Your task to perform on an android device: turn on translation in the chrome app Image 0: 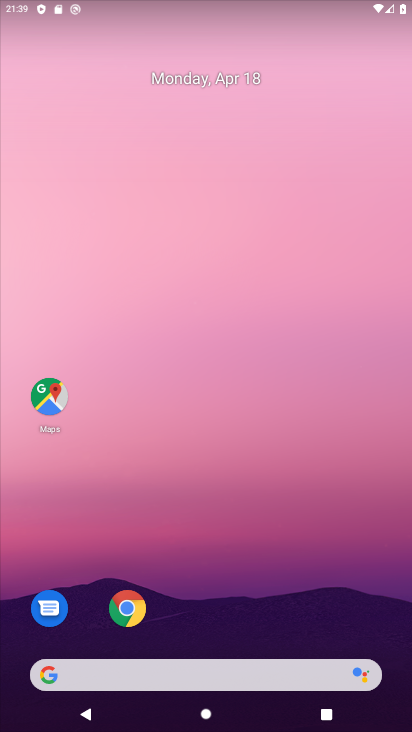
Step 0: drag from (237, 598) to (225, 199)
Your task to perform on an android device: turn on translation in the chrome app Image 1: 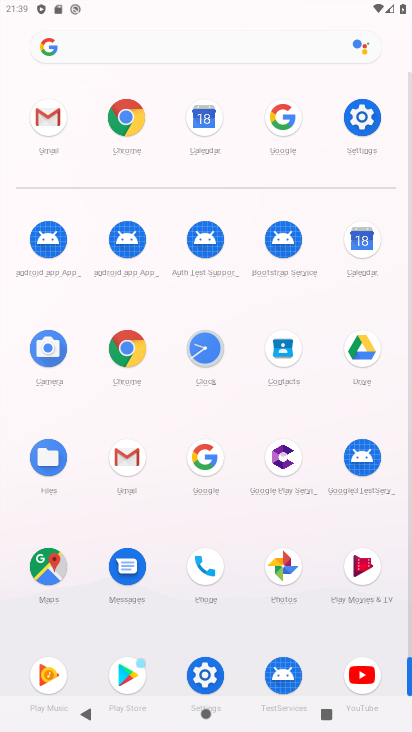
Step 1: drag from (169, 614) to (183, 392)
Your task to perform on an android device: turn on translation in the chrome app Image 2: 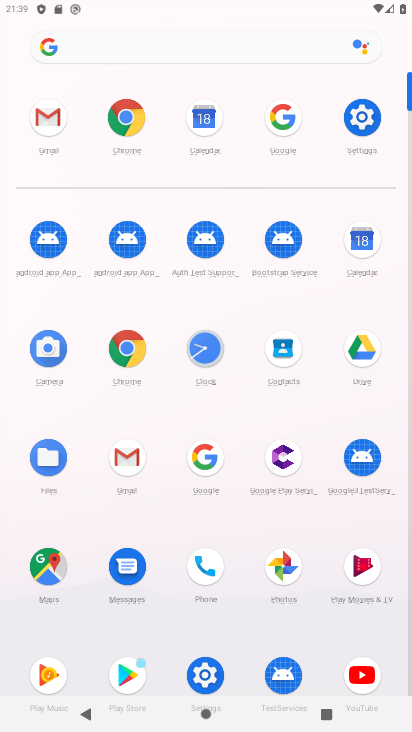
Step 2: drag from (171, 609) to (160, 504)
Your task to perform on an android device: turn on translation in the chrome app Image 3: 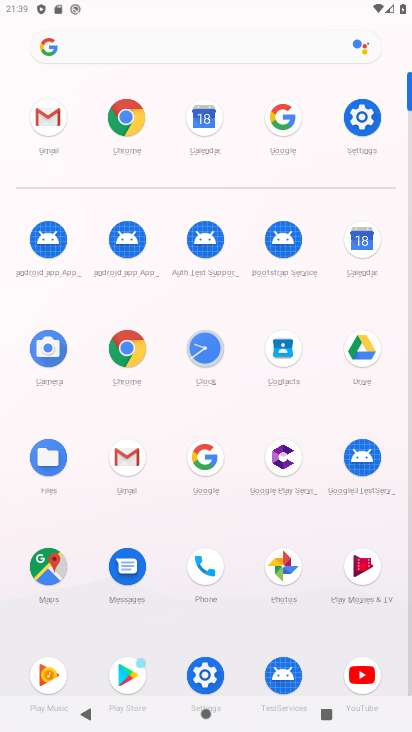
Step 3: click (131, 117)
Your task to perform on an android device: turn on translation in the chrome app Image 4: 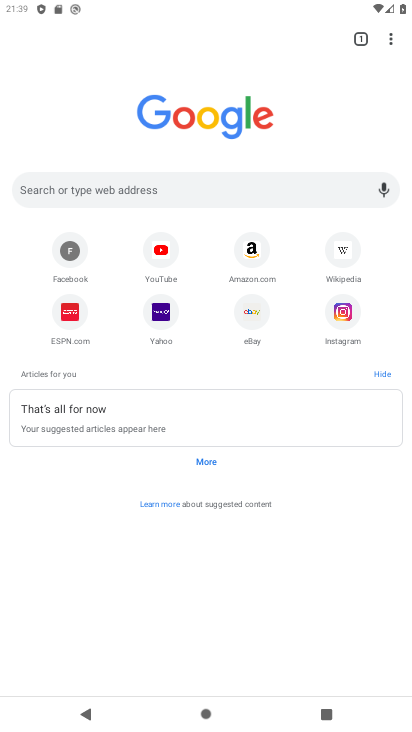
Step 4: click (389, 35)
Your task to perform on an android device: turn on translation in the chrome app Image 5: 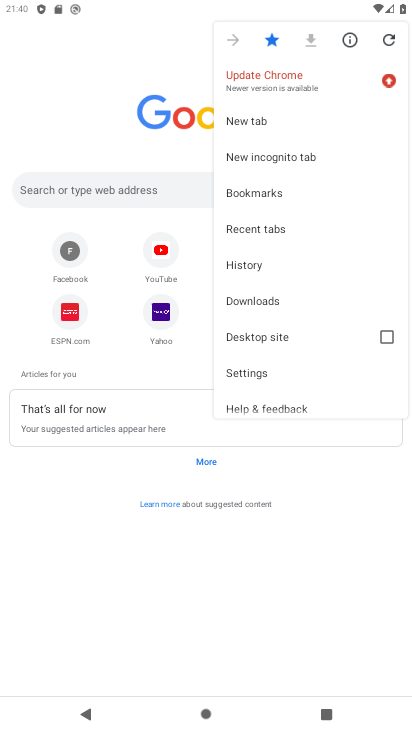
Step 5: click (253, 366)
Your task to perform on an android device: turn on translation in the chrome app Image 6: 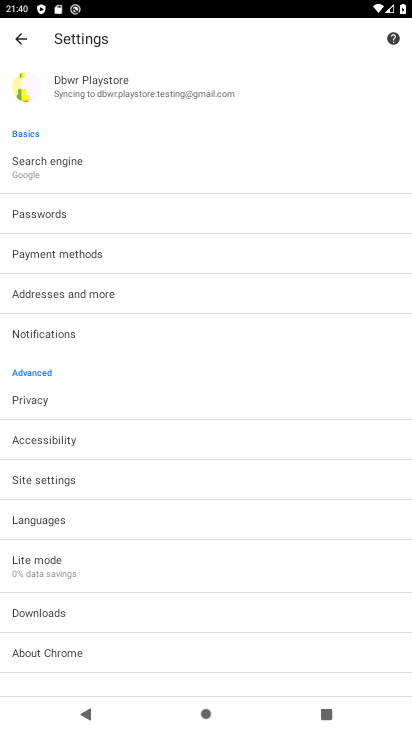
Step 6: click (88, 528)
Your task to perform on an android device: turn on translation in the chrome app Image 7: 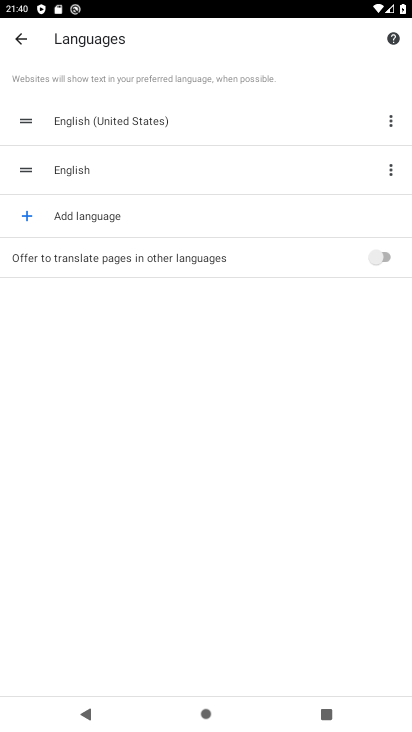
Step 7: click (378, 258)
Your task to perform on an android device: turn on translation in the chrome app Image 8: 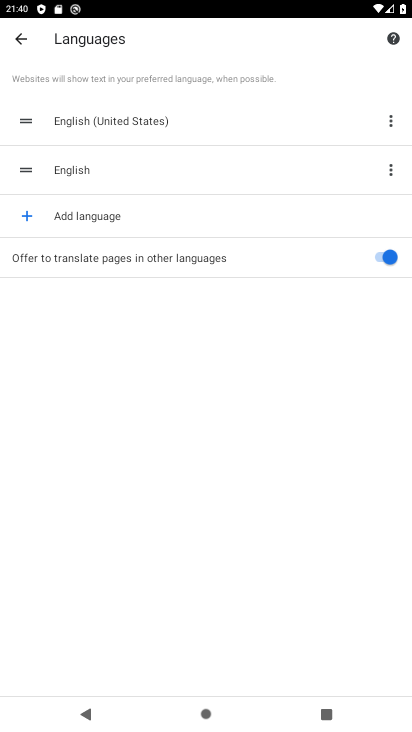
Step 8: task complete